Your task to perform on an android device: empty trash in google photos Image 0: 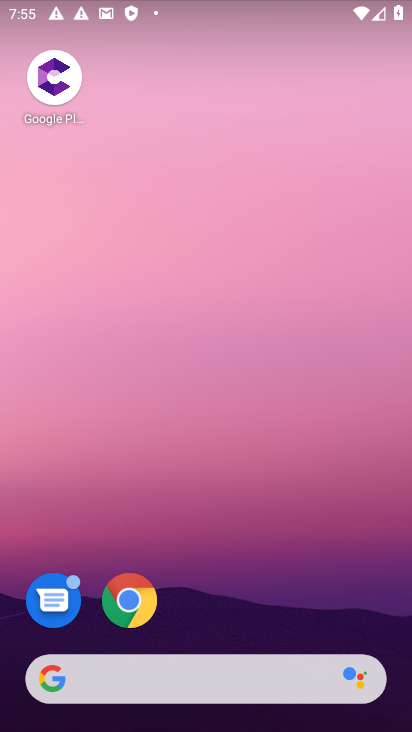
Step 0: drag from (227, 648) to (188, 81)
Your task to perform on an android device: empty trash in google photos Image 1: 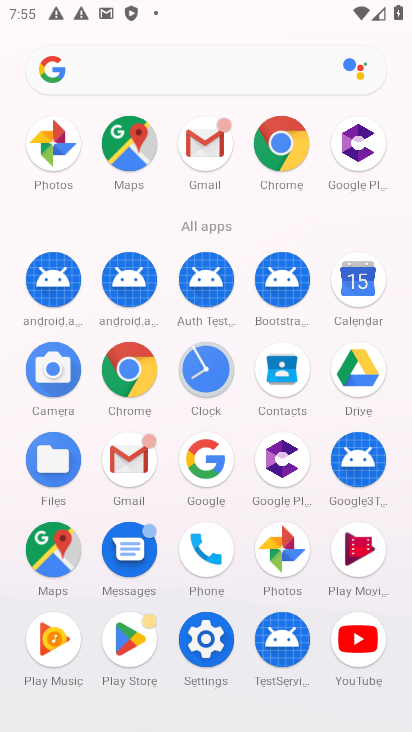
Step 1: click (281, 539)
Your task to perform on an android device: empty trash in google photos Image 2: 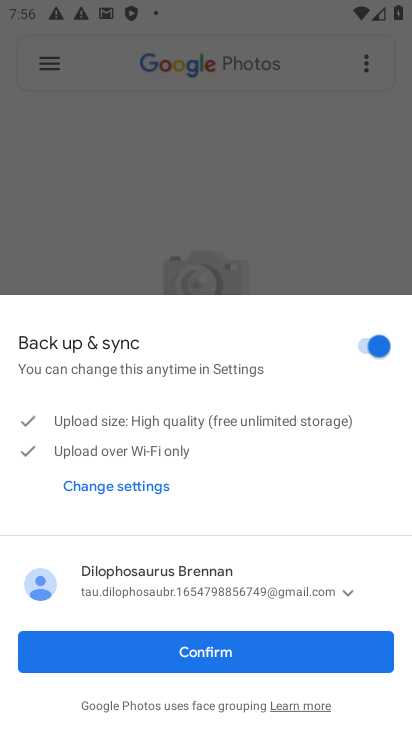
Step 2: click (229, 651)
Your task to perform on an android device: empty trash in google photos Image 3: 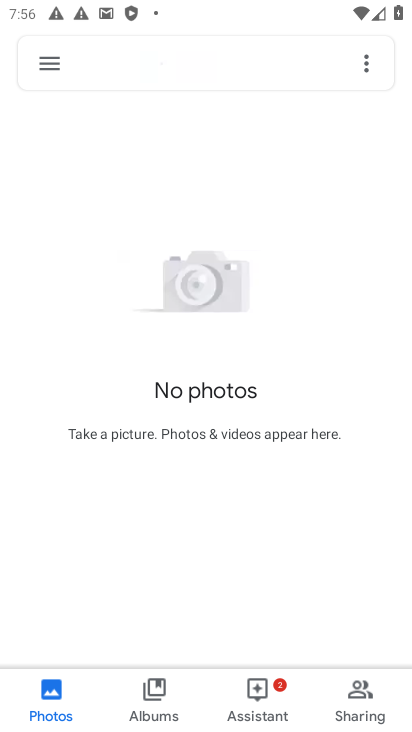
Step 3: click (42, 65)
Your task to perform on an android device: empty trash in google photos Image 4: 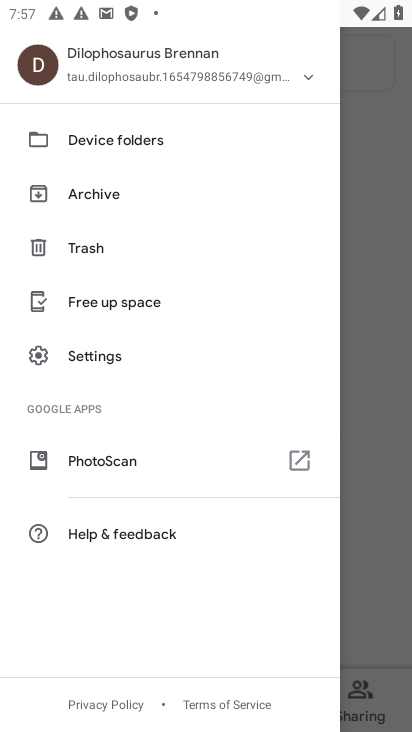
Step 4: click (91, 246)
Your task to perform on an android device: empty trash in google photos Image 5: 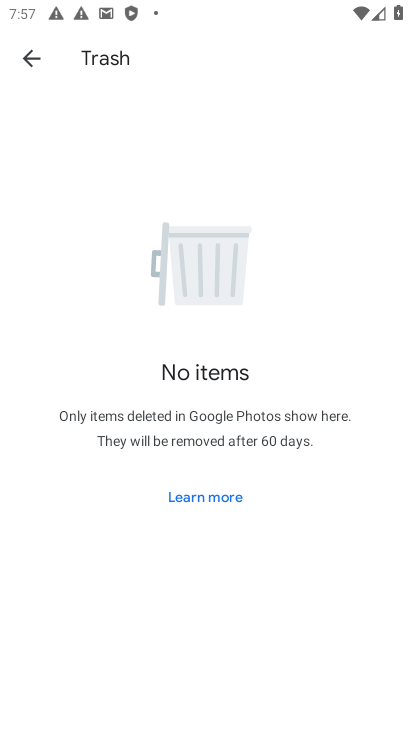
Step 5: task complete